Your task to perform on an android device: Turn off the flashlight Image 0: 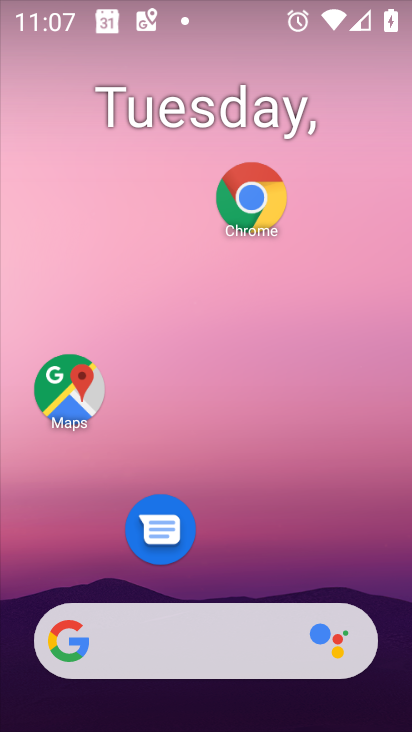
Step 0: drag from (330, 584) to (333, 69)
Your task to perform on an android device: Turn off the flashlight Image 1: 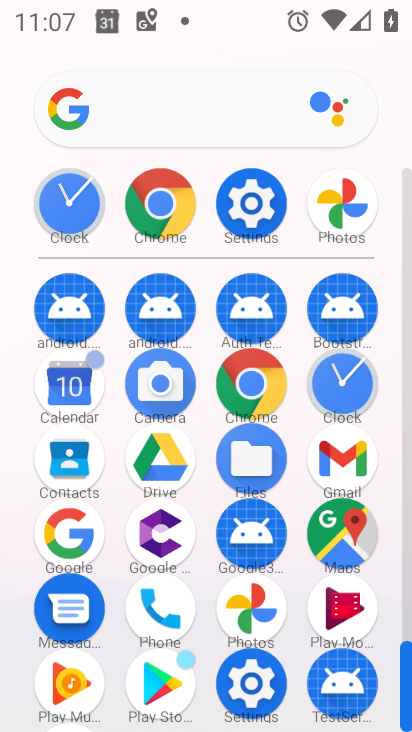
Step 1: click (249, 220)
Your task to perform on an android device: Turn off the flashlight Image 2: 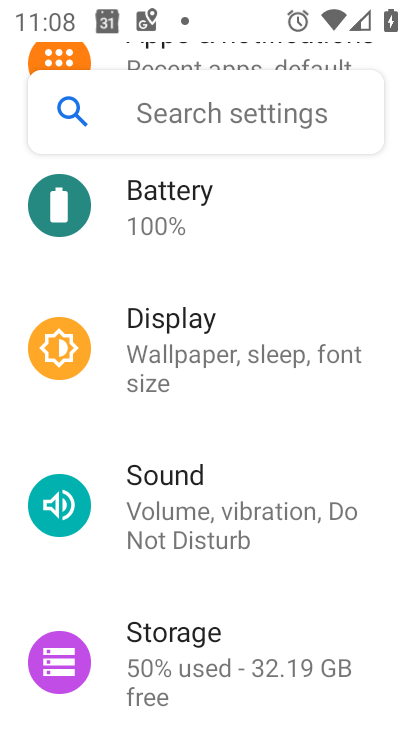
Step 2: task complete